Your task to perform on an android device: turn on the 12-hour format for clock Image 0: 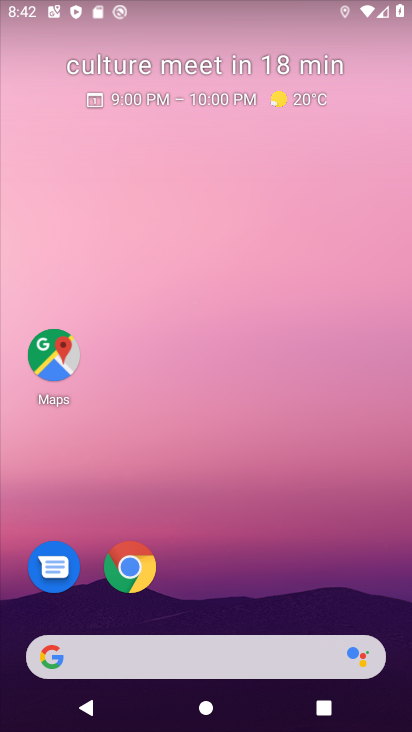
Step 0: drag from (43, 87) to (247, 20)
Your task to perform on an android device: turn on the 12-hour format for clock Image 1: 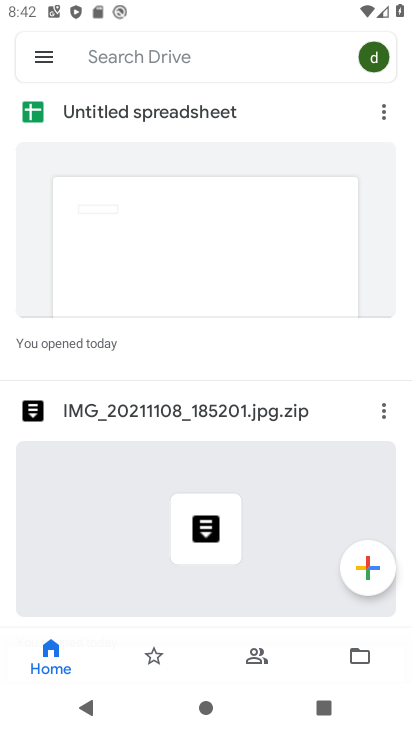
Step 1: press home button
Your task to perform on an android device: turn on the 12-hour format for clock Image 2: 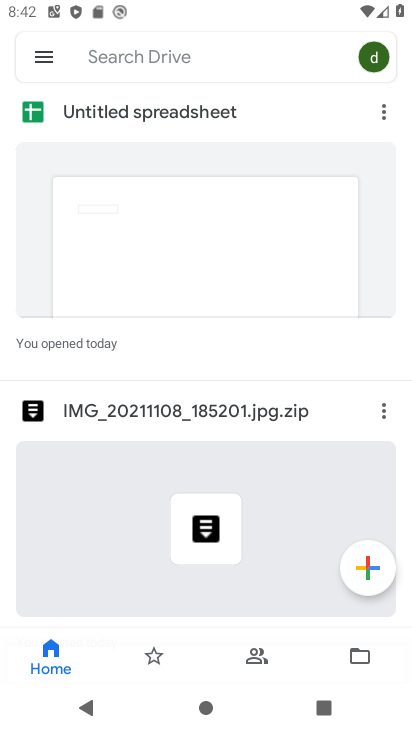
Step 2: click (247, 20)
Your task to perform on an android device: turn on the 12-hour format for clock Image 3: 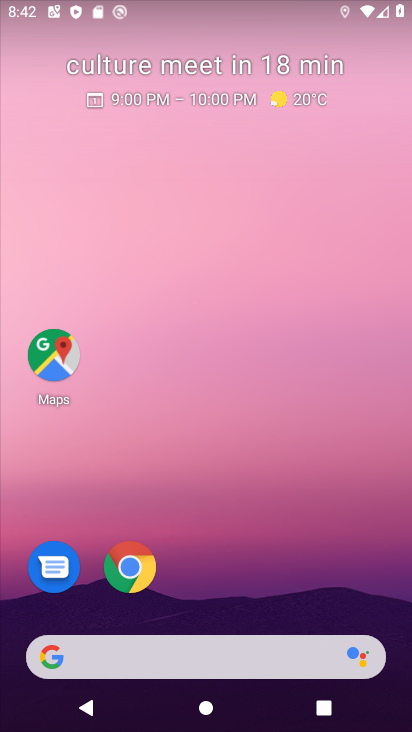
Step 3: drag from (247, 488) to (254, 134)
Your task to perform on an android device: turn on the 12-hour format for clock Image 4: 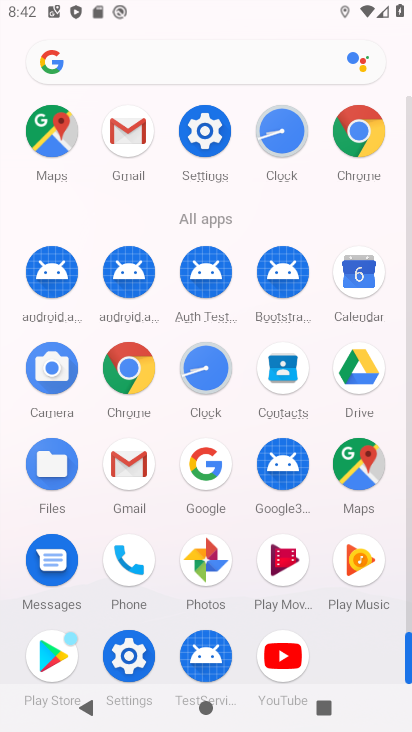
Step 4: click (290, 134)
Your task to perform on an android device: turn on the 12-hour format for clock Image 5: 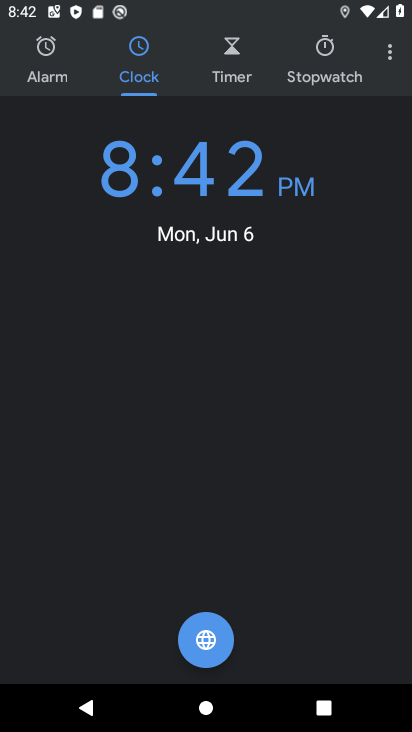
Step 5: click (400, 59)
Your task to perform on an android device: turn on the 12-hour format for clock Image 6: 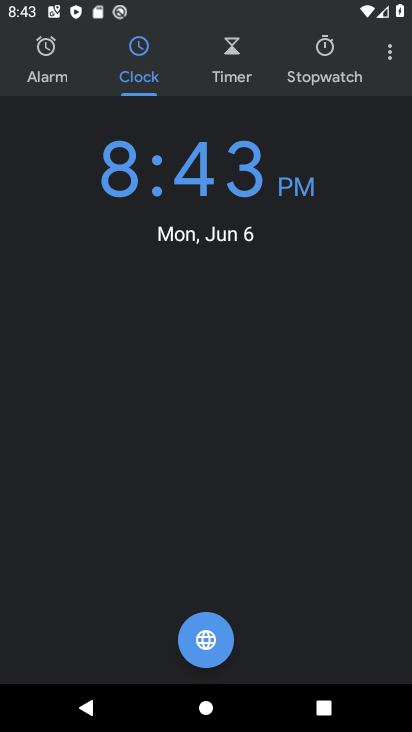
Step 6: click (384, 45)
Your task to perform on an android device: turn on the 12-hour format for clock Image 7: 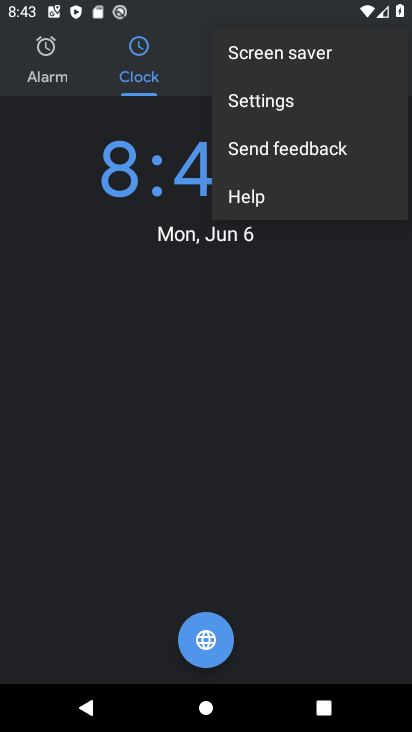
Step 7: click (323, 108)
Your task to perform on an android device: turn on the 12-hour format for clock Image 8: 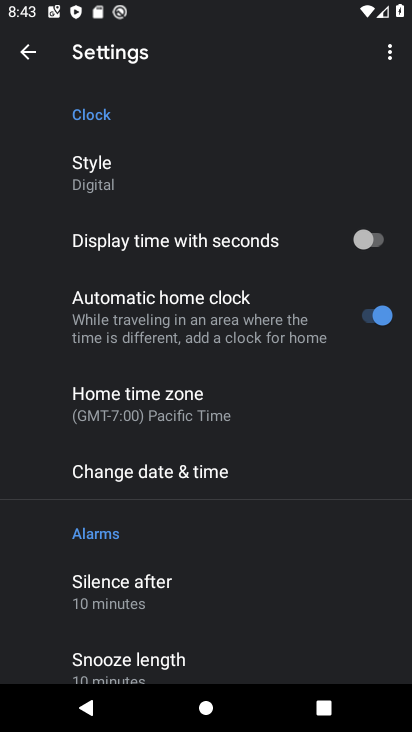
Step 8: task complete